Your task to perform on an android device: Do I have any events tomorrow? Image 0: 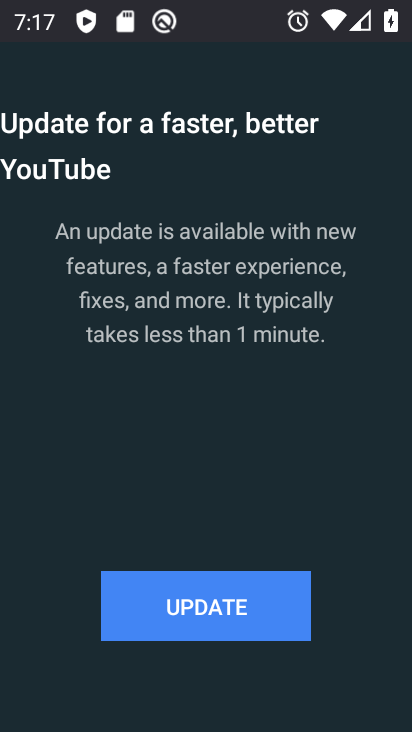
Step 0: press home button
Your task to perform on an android device: Do I have any events tomorrow? Image 1: 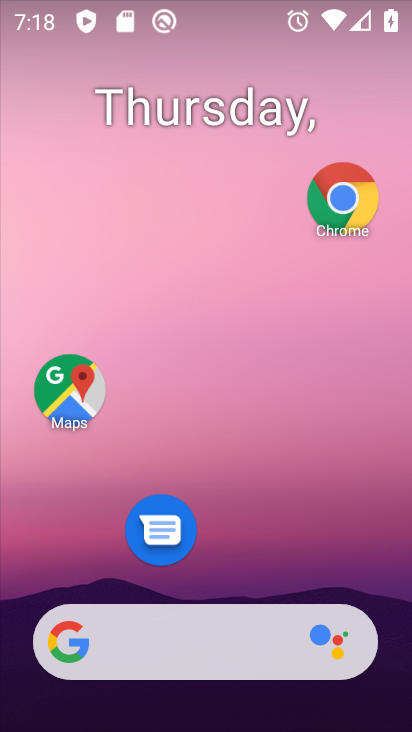
Step 1: click (212, 631)
Your task to perform on an android device: Do I have any events tomorrow? Image 2: 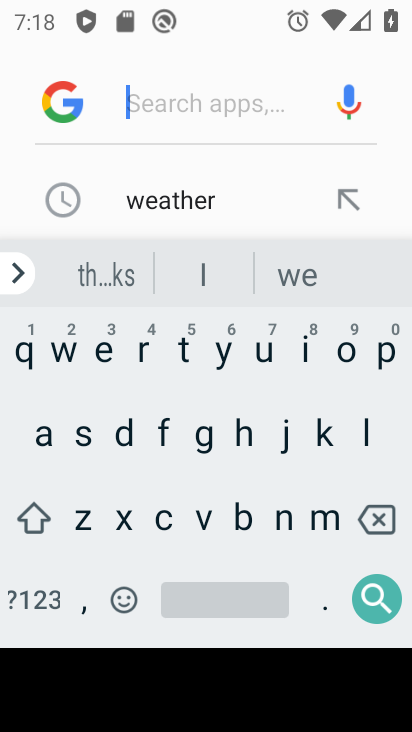
Step 2: press home button
Your task to perform on an android device: Do I have any events tomorrow? Image 3: 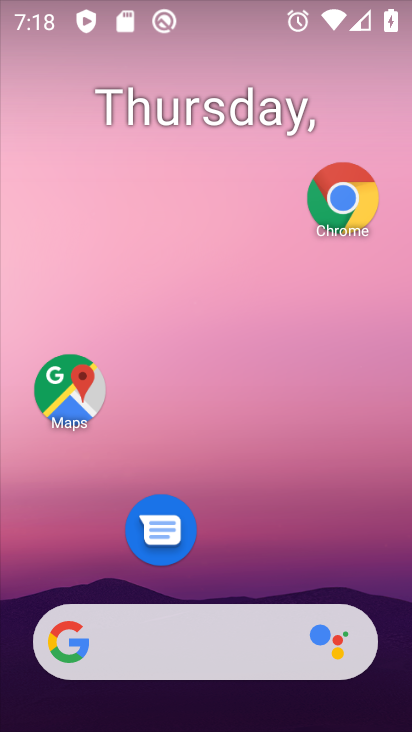
Step 3: drag from (250, 684) to (271, 276)
Your task to perform on an android device: Do I have any events tomorrow? Image 4: 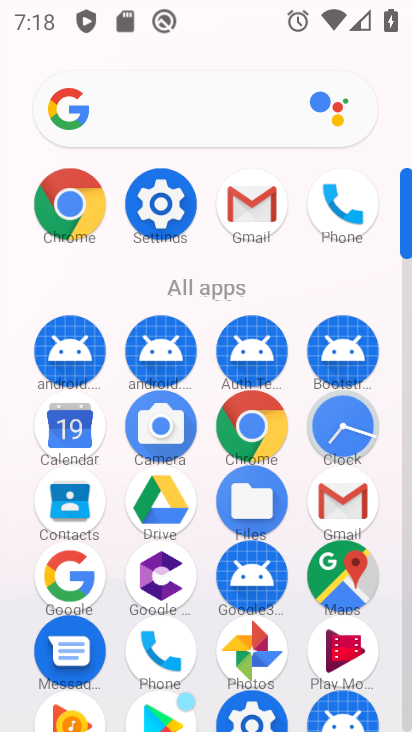
Step 4: click (71, 432)
Your task to perform on an android device: Do I have any events tomorrow? Image 5: 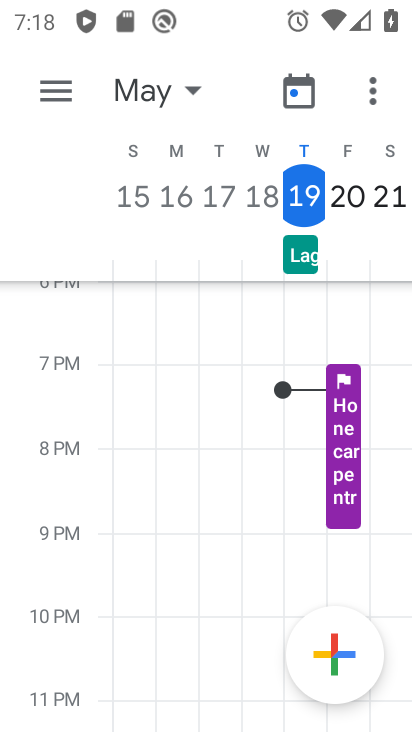
Step 5: click (350, 200)
Your task to perform on an android device: Do I have any events tomorrow? Image 6: 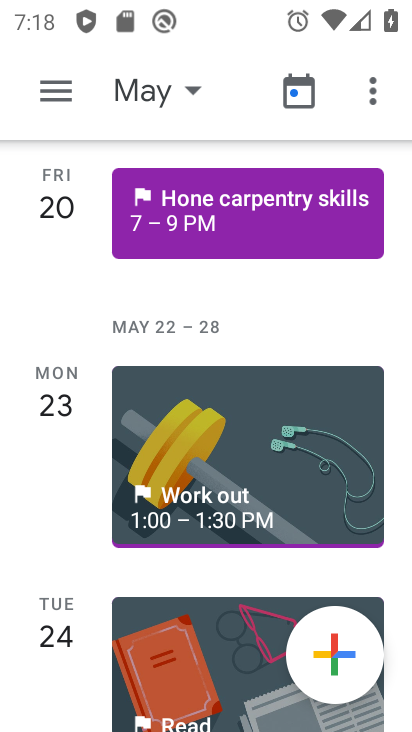
Step 6: task complete